Your task to perform on an android device: turn off location history Image 0: 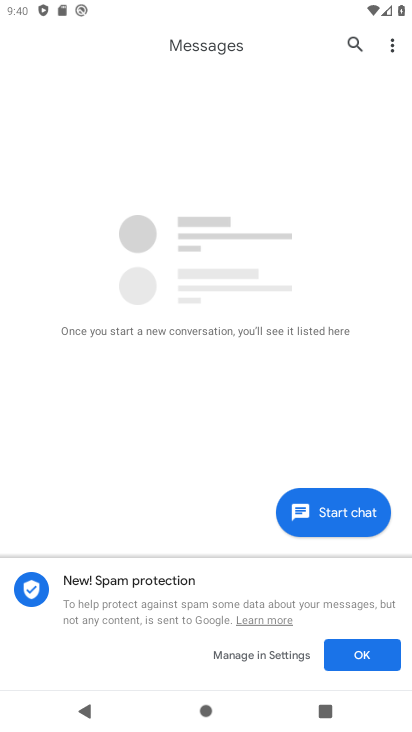
Step 0: press home button
Your task to perform on an android device: turn off location history Image 1: 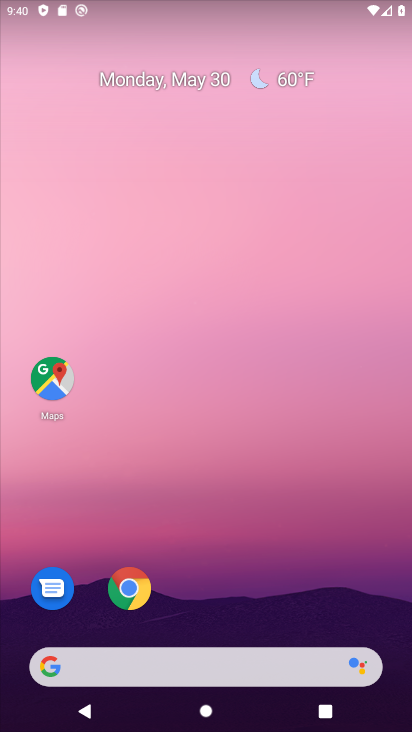
Step 1: drag from (211, 580) to (239, 9)
Your task to perform on an android device: turn off location history Image 2: 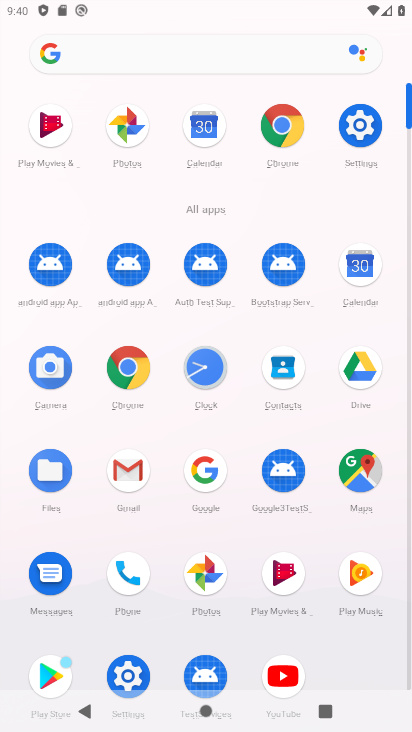
Step 2: click (142, 673)
Your task to perform on an android device: turn off location history Image 3: 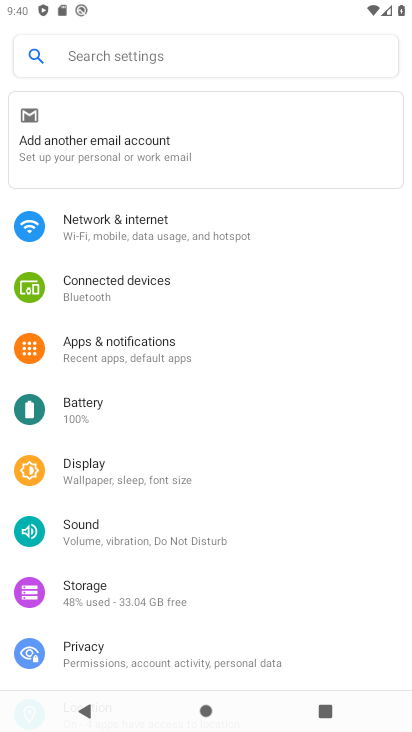
Step 3: drag from (178, 664) to (190, 294)
Your task to perform on an android device: turn off location history Image 4: 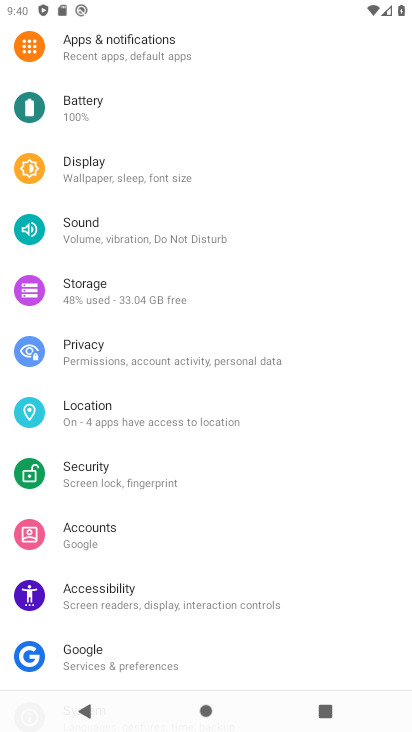
Step 4: click (172, 420)
Your task to perform on an android device: turn off location history Image 5: 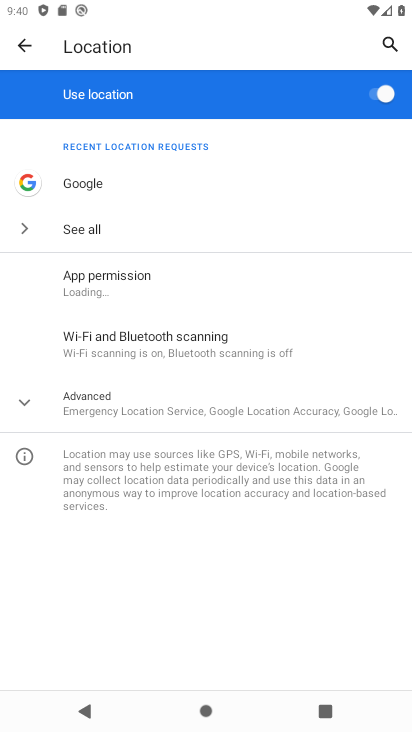
Step 5: click (171, 419)
Your task to perform on an android device: turn off location history Image 6: 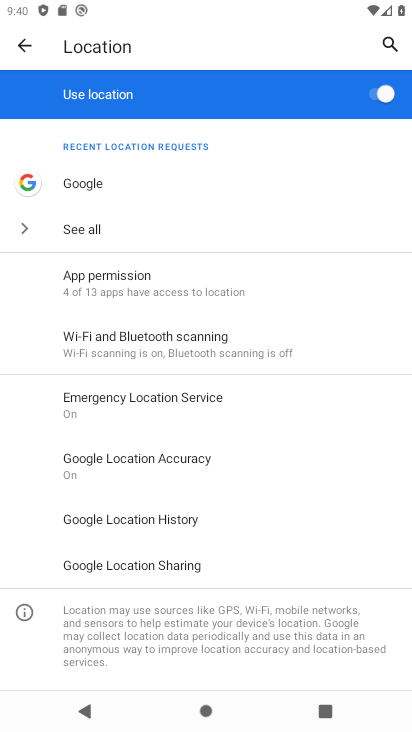
Step 6: click (151, 519)
Your task to perform on an android device: turn off location history Image 7: 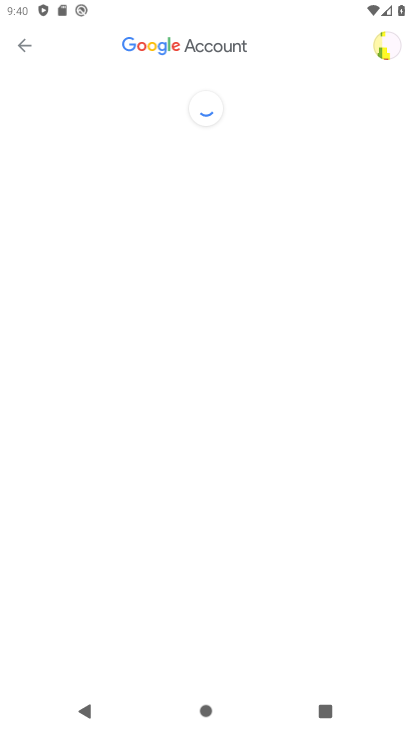
Step 7: click (336, 531)
Your task to perform on an android device: turn off location history Image 8: 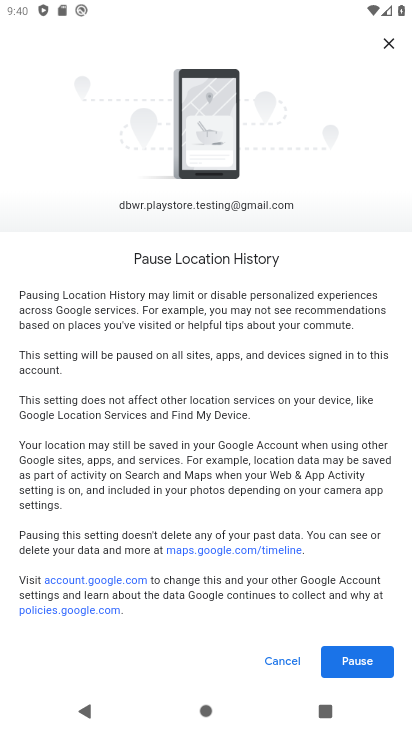
Step 8: click (361, 663)
Your task to perform on an android device: turn off location history Image 9: 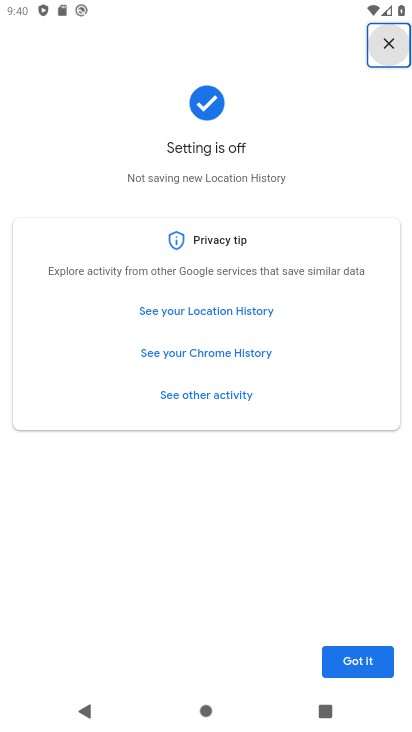
Step 9: click (367, 660)
Your task to perform on an android device: turn off location history Image 10: 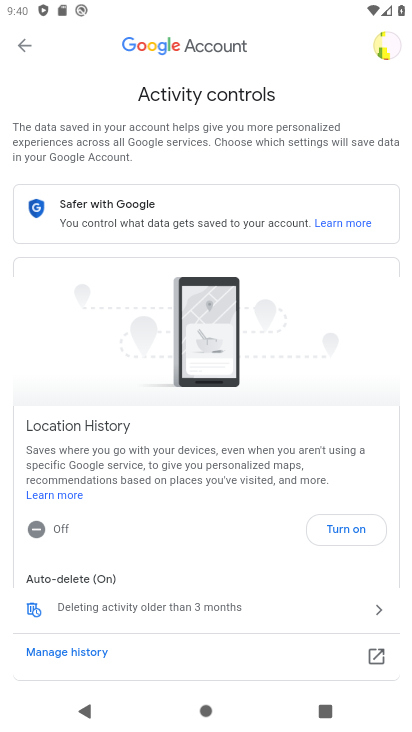
Step 10: task complete